Your task to perform on an android device: Is it going to rain this weekend? Image 0: 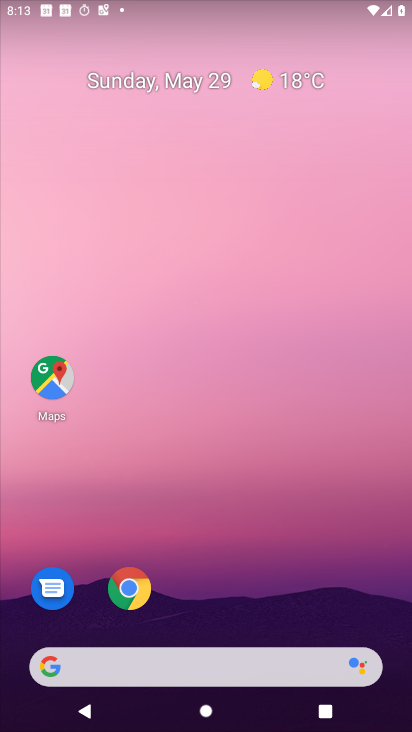
Step 0: drag from (246, 587) to (366, 148)
Your task to perform on an android device: Is it going to rain this weekend? Image 1: 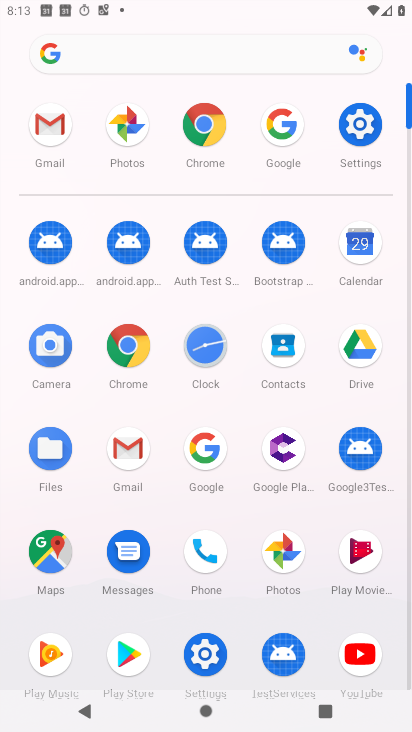
Step 1: click (294, 110)
Your task to perform on an android device: Is it going to rain this weekend? Image 2: 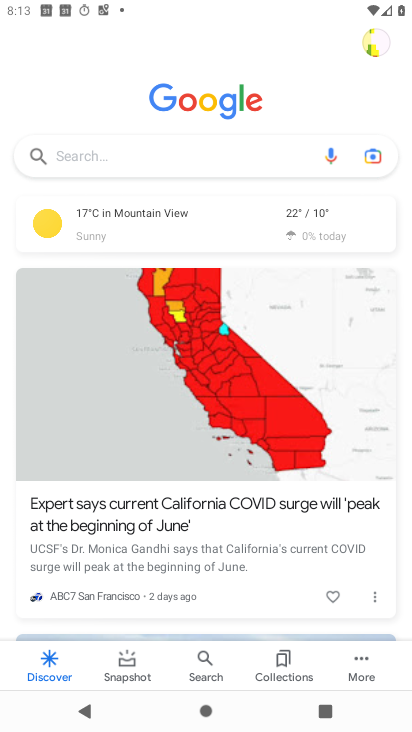
Step 2: click (162, 150)
Your task to perform on an android device: Is it going to rain this weekend? Image 3: 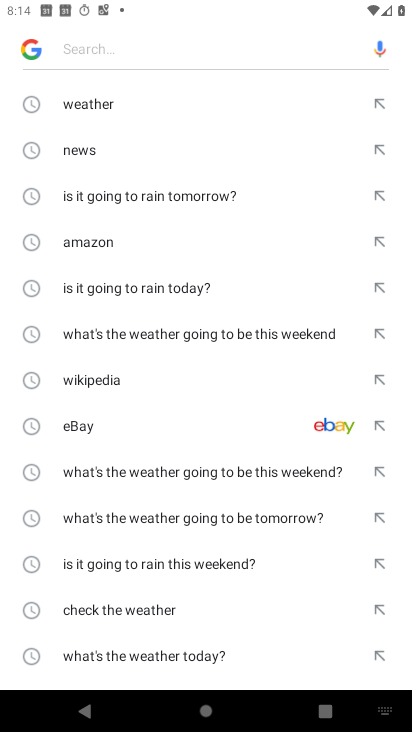
Step 3: drag from (157, 475) to (169, 409)
Your task to perform on an android device: Is it going to rain this weekend? Image 4: 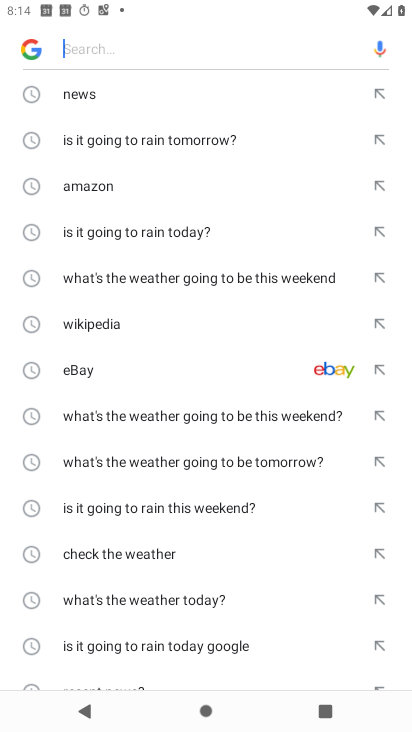
Step 4: click (159, 505)
Your task to perform on an android device: Is it going to rain this weekend? Image 5: 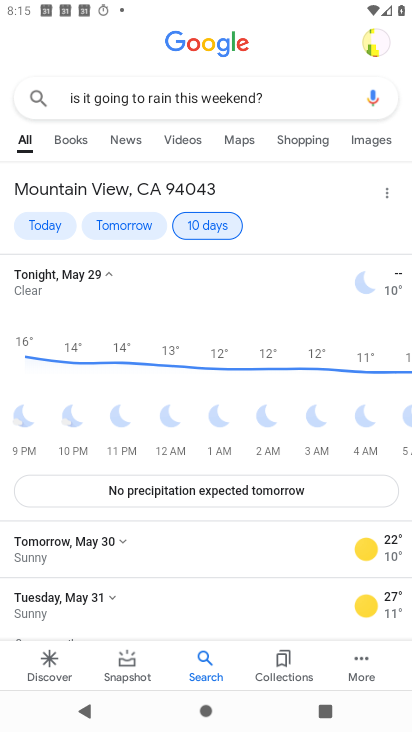
Step 5: task complete